Your task to perform on an android device: Open Reddit.com Image 0: 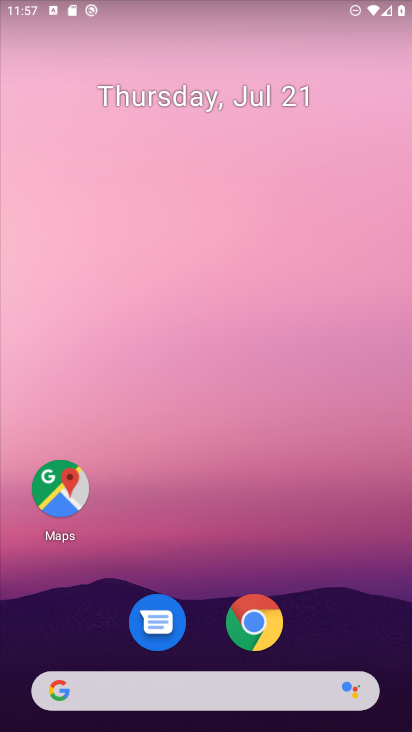
Step 0: click (253, 695)
Your task to perform on an android device: Open Reddit.com Image 1: 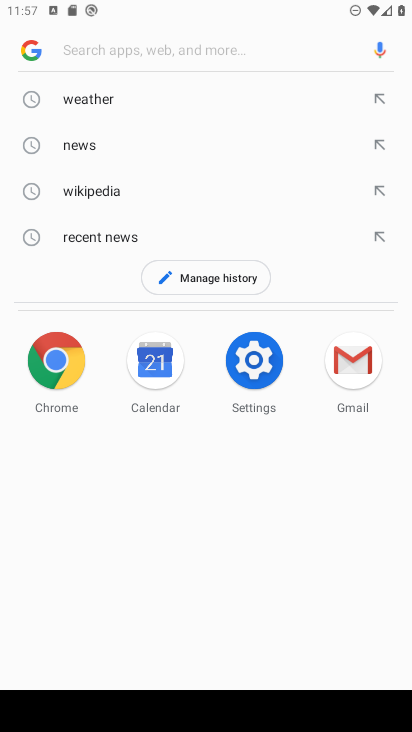
Step 1: type "reddit.com"
Your task to perform on an android device: Open Reddit.com Image 2: 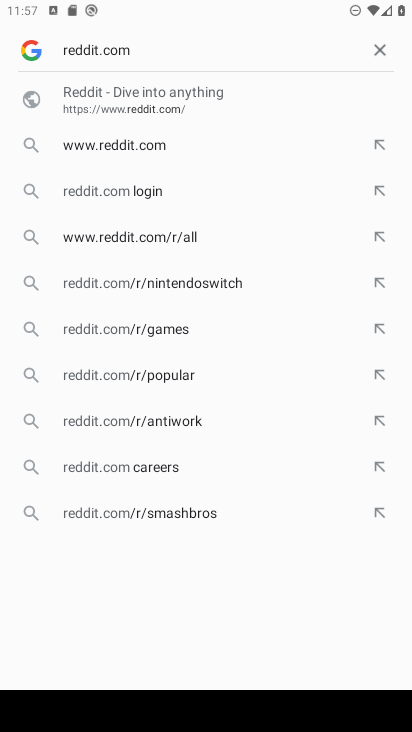
Step 2: click (185, 142)
Your task to perform on an android device: Open Reddit.com Image 3: 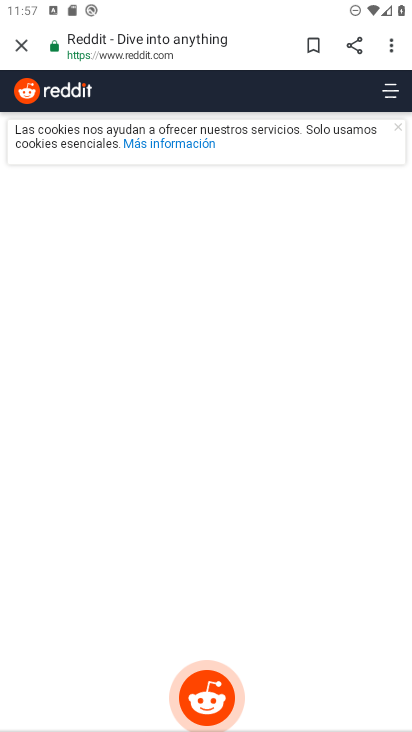
Step 3: task complete